Your task to perform on an android device: Show me popular games on the Play Store Image 0: 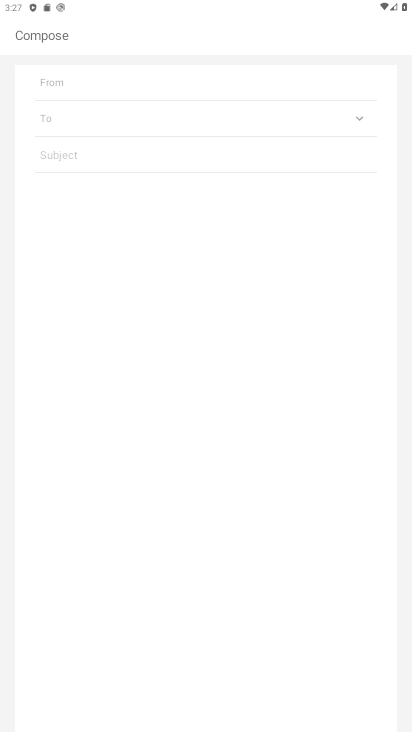
Step 0: press home button
Your task to perform on an android device: Show me popular games on the Play Store Image 1: 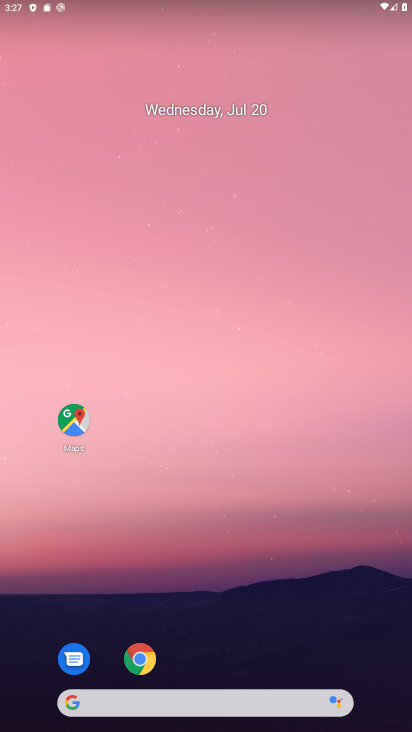
Step 1: click (192, 660)
Your task to perform on an android device: Show me popular games on the Play Store Image 2: 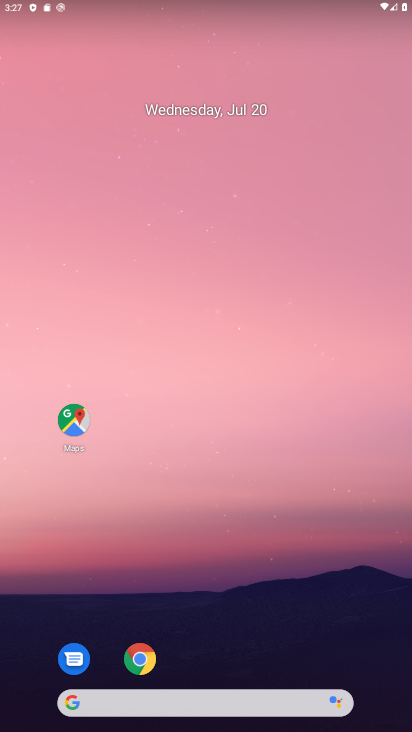
Step 2: drag from (166, 652) to (249, 1)
Your task to perform on an android device: Show me popular games on the Play Store Image 3: 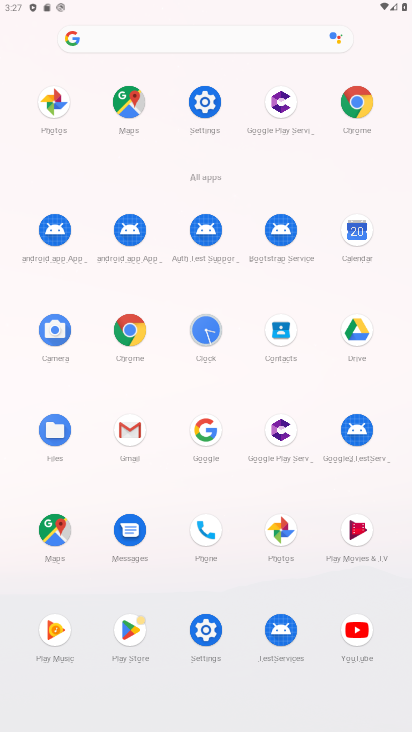
Step 3: click (123, 629)
Your task to perform on an android device: Show me popular games on the Play Store Image 4: 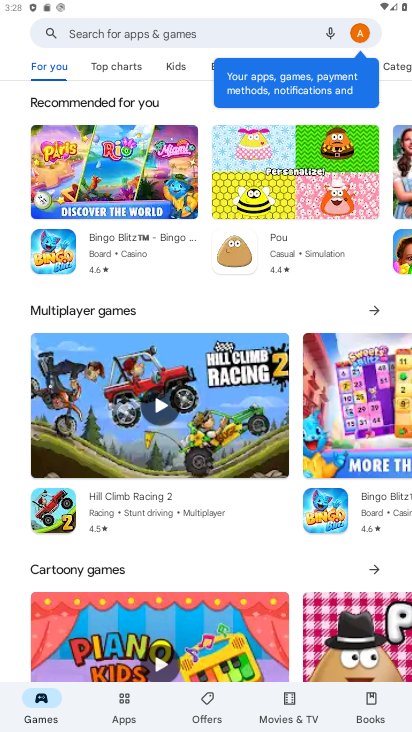
Step 4: task complete